Your task to perform on an android device: Open Google Image 0: 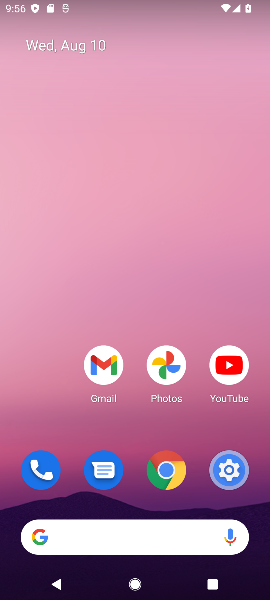
Step 0: click (145, 532)
Your task to perform on an android device: Open Google Image 1: 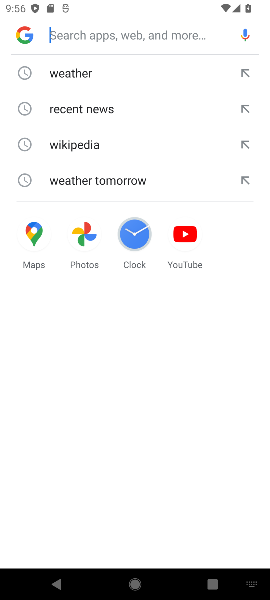
Step 1: task complete